Your task to perform on an android device: toggle priority inbox in the gmail app Image 0: 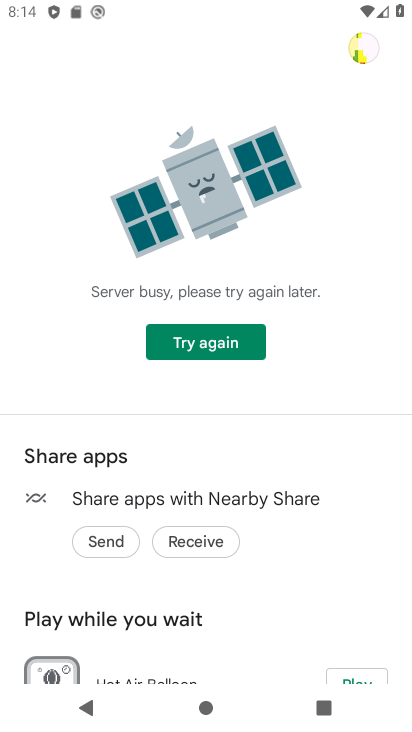
Step 0: press home button
Your task to perform on an android device: toggle priority inbox in the gmail app Image 1: 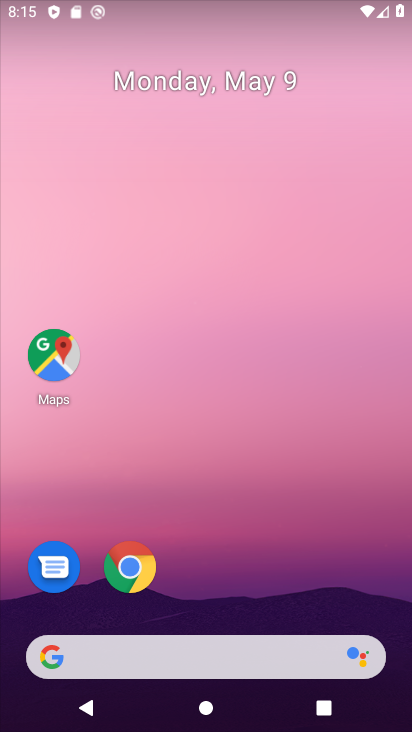
Step 1: drag from (324, 599) to (292, 209)
Your task to perform on an android device: toggle priority inbox in the gmail app Image 2: 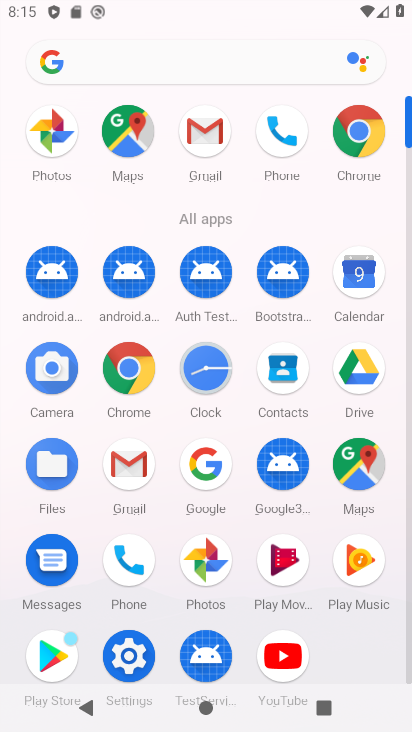
Step 2: click (131, 450)
Your task to perform on an android device: toggle priority inbox in the gmail app Image 3: 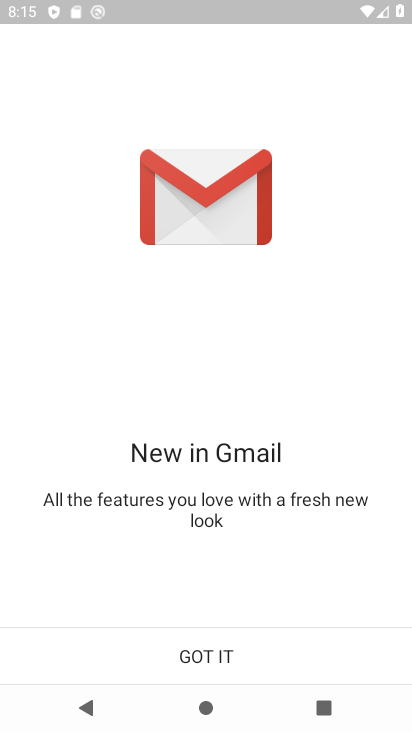
Step 3: click (206, 658)
Your task to perform on an android device: toggle priority inbox in the gmail app Image 4: 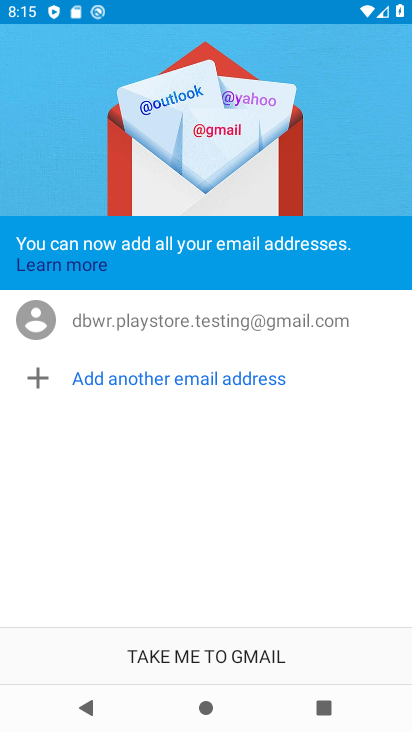
Step 4: click (208, 655)
Your task to perform on an android device: toggle priority inbox in the gmail app Image 5: 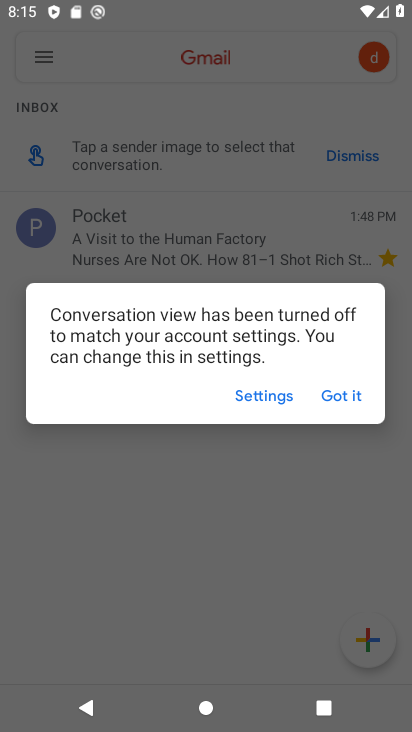
Step 5: click (344, 399)
Your task to perform on an android device: toggle priority inbox in the gmail app Image 6: 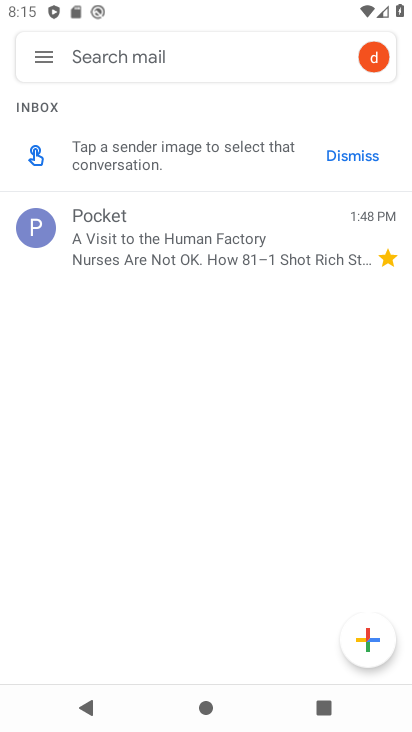
Step 6: click (39, 66)
Your task to perform on an android device: toggle priority inbox in the gmail app Image 7: 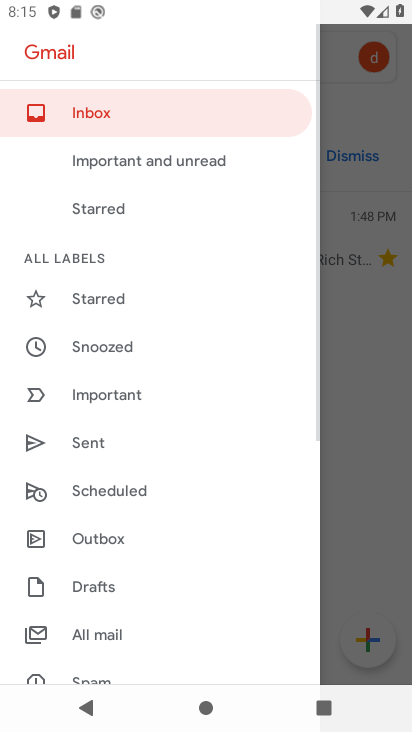
Step 7: drag from (185, 652) to (167, 266)
Your task to perform on an android device: toggle priority inbox in the gmail app Image 8: 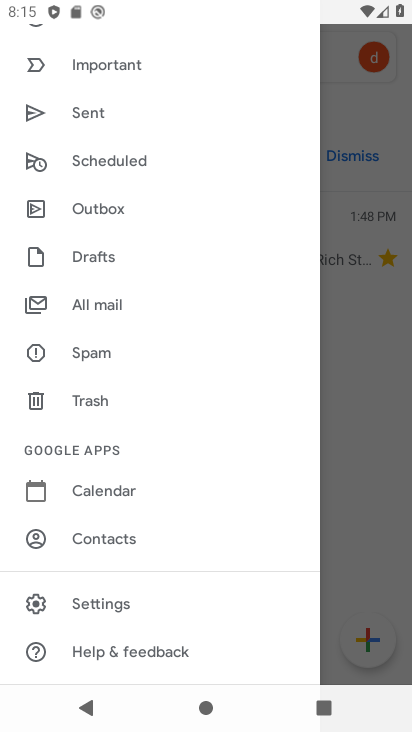
Step 8: click (147, 602)
Your task to perform on an android device: toggle priority inbox in the gmail app Image 9: 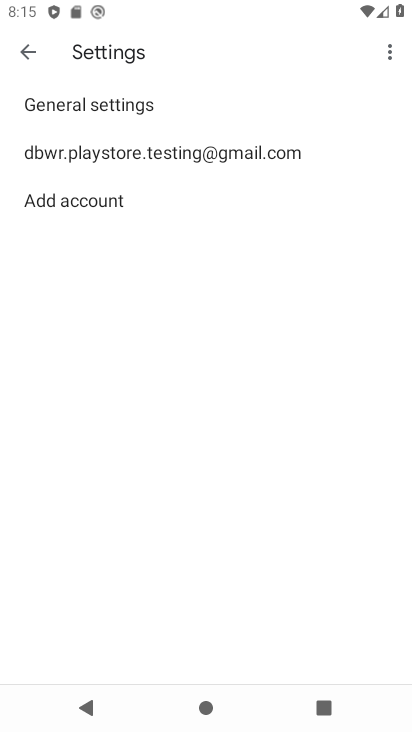
Step 9: click (253, 154)
Your task to perform on an android device: toggle priority inbox in the gmail app Image 10: 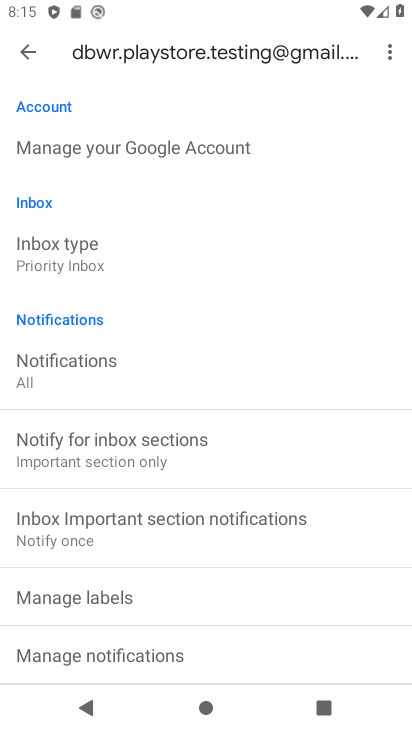
Step 10: drag from (226, 569) to (230, 275)
Your task to perform on an android device: toggle priority inbox in the gmail app Image 11: 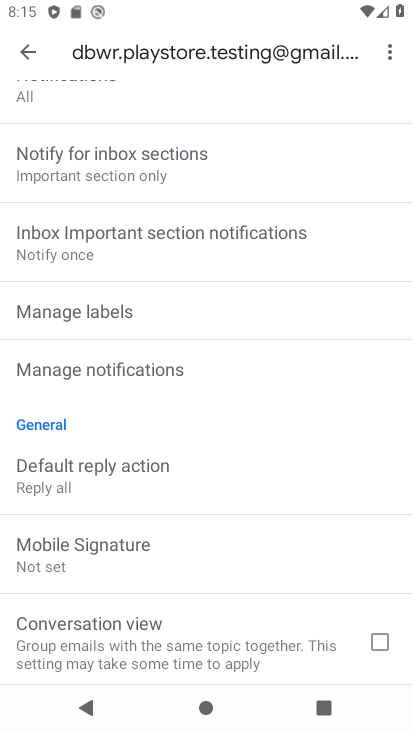
Step 11: drag from (252, 170) to (256, 390)
Your task to perform on an android device: toggle priority inbox in the gmail app Image 12: 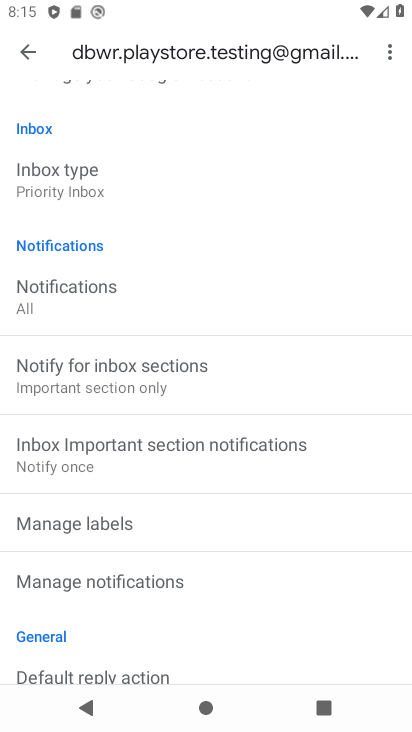
Step 12: click (74, 190)
Your task to perform on an android device: toggle priority inbox in the gmail app Image 13: 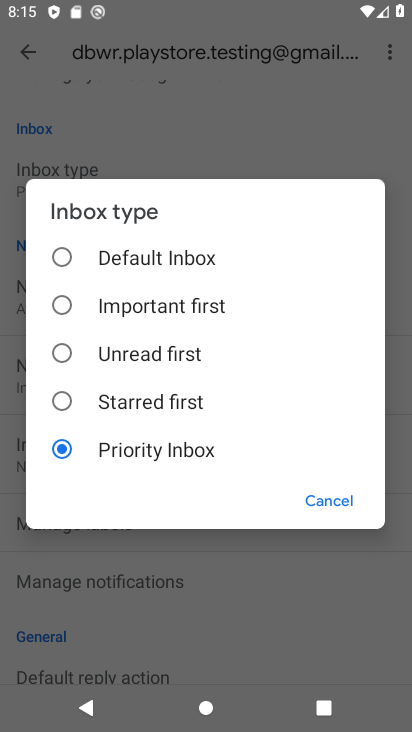
Step 13: click (62, 259)
Your task to perform on an android device: toggle priority inbox in the gmail app Image 14: 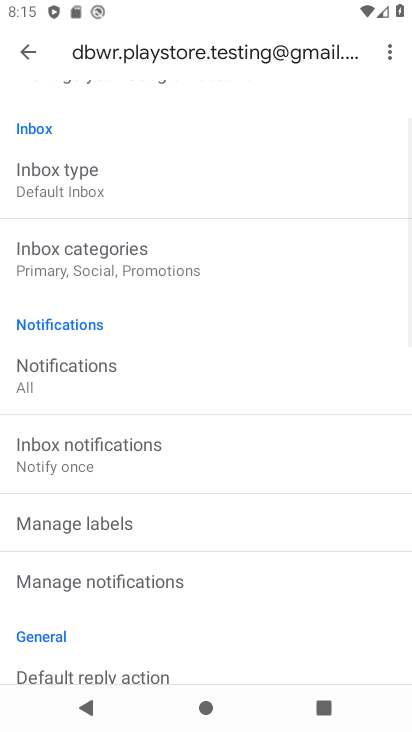
Step 14: task complete